Your task to perform on an android device: open app "Google Photos" (install if not already installed) Image 0: 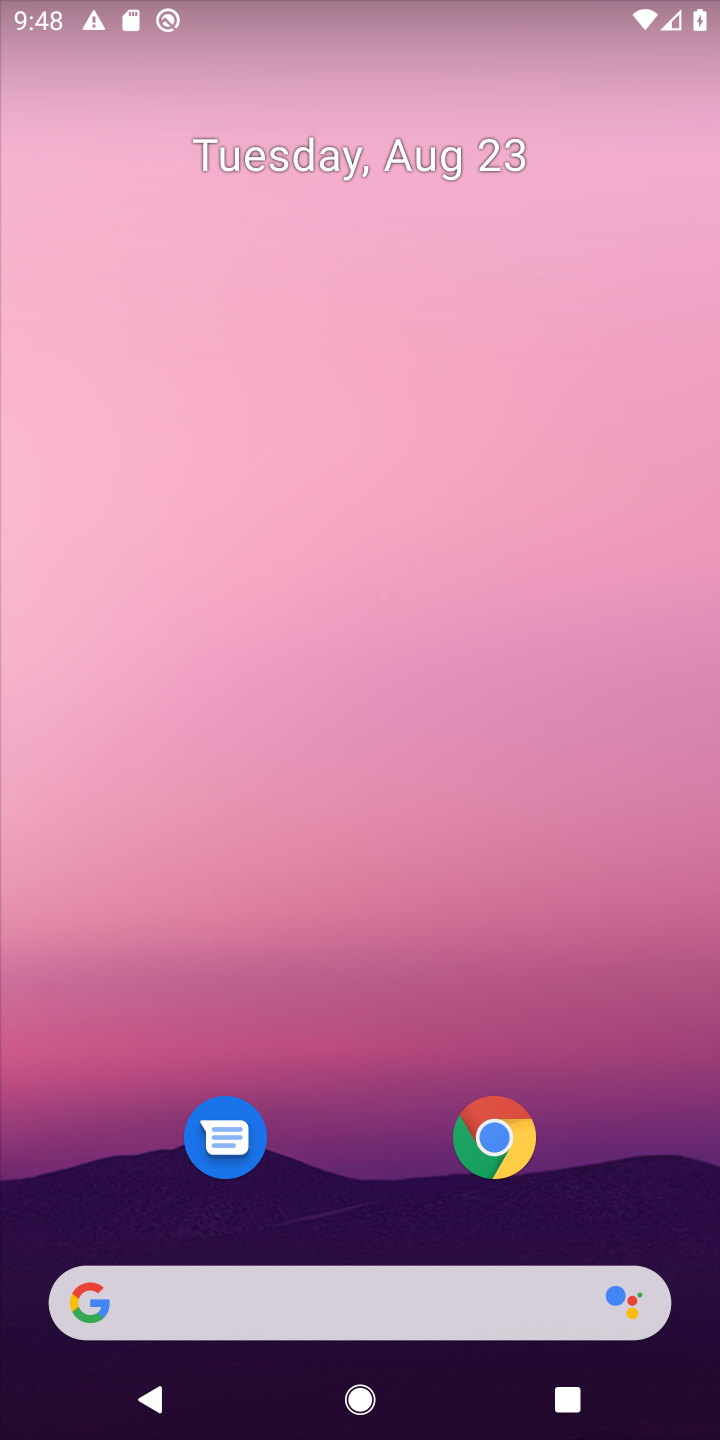
Step 0: drag from (455, 906) to (320, 106)
Your task to perform on an android device: open app "Google Photos" (install if not already installed) Image 1: 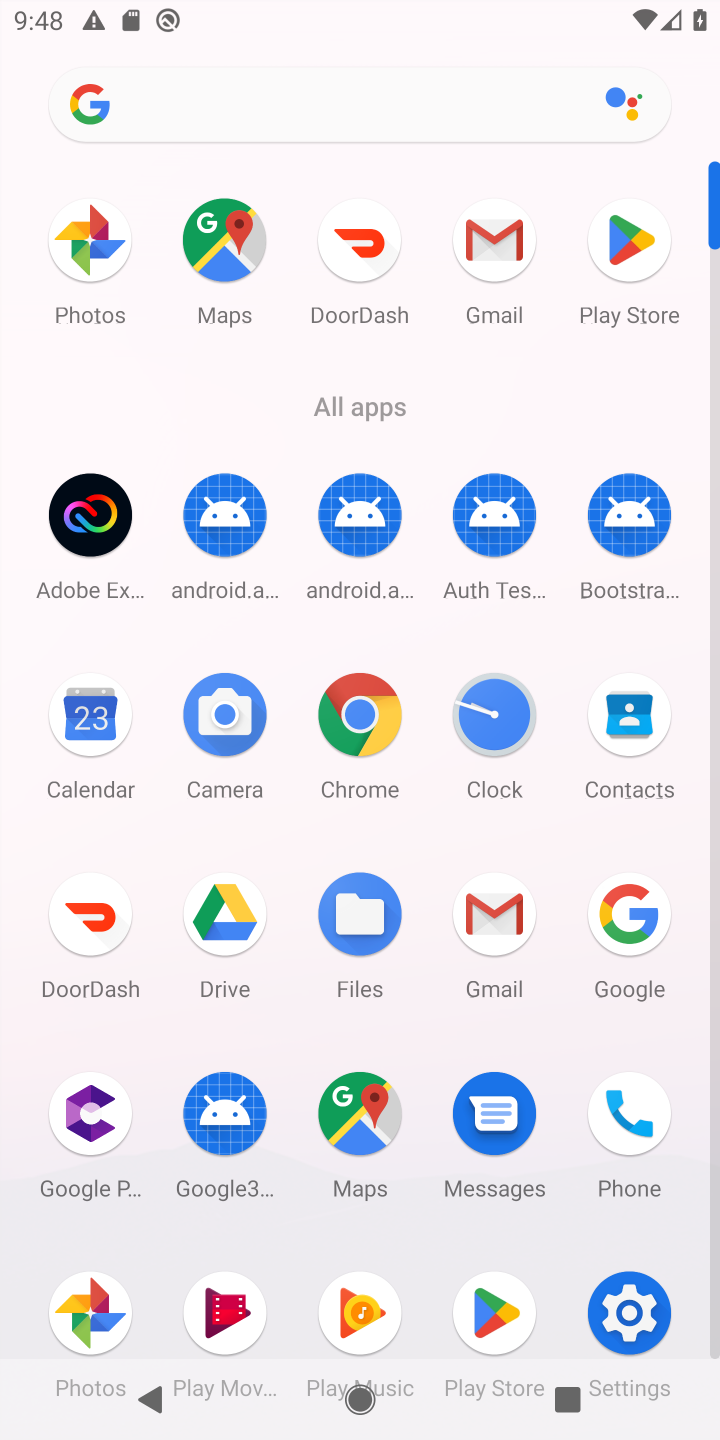
Step 1: click (102, 1299)
Your task to perform on an android device: open app "Google Photos" (install if not already installed) Image 2: 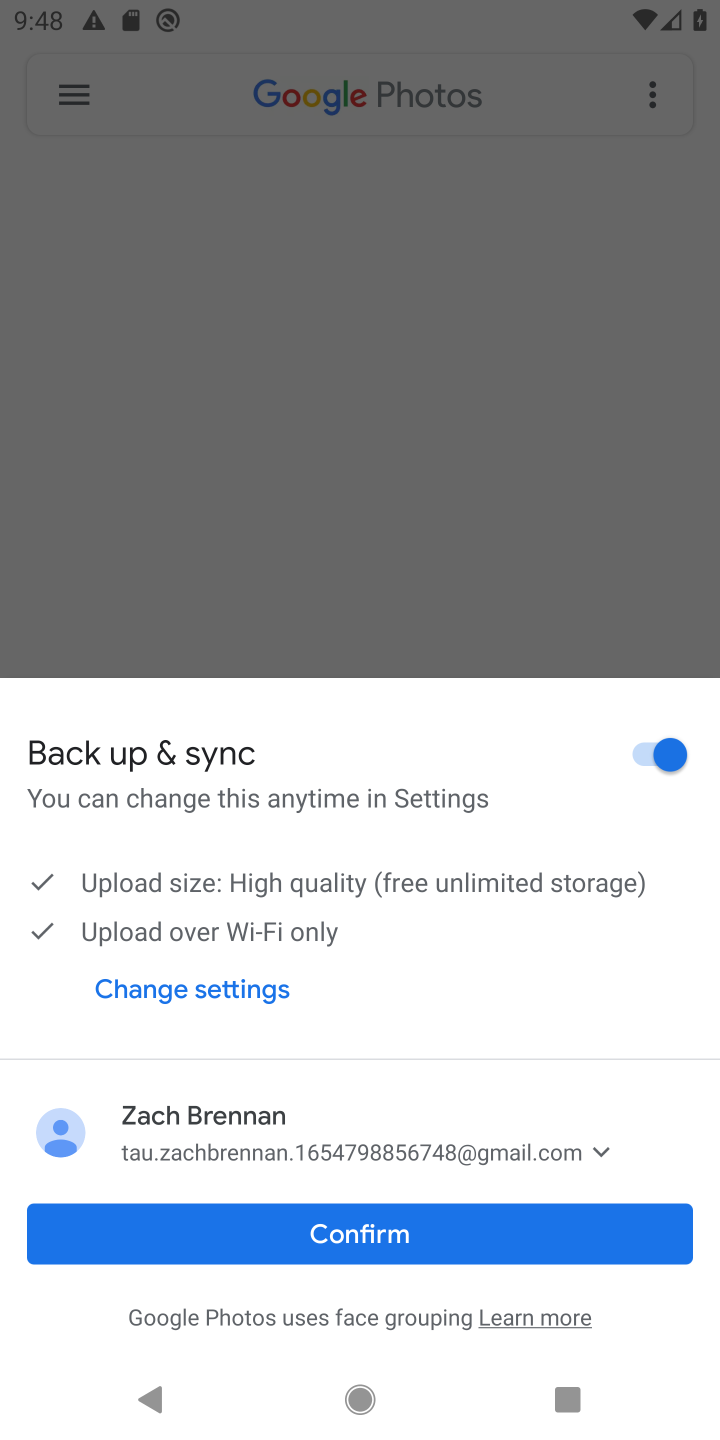
Step 2: click (216, 1255)
Your task to perform on an android device: open app "Google Photos" (install if not already installed) Image 3: 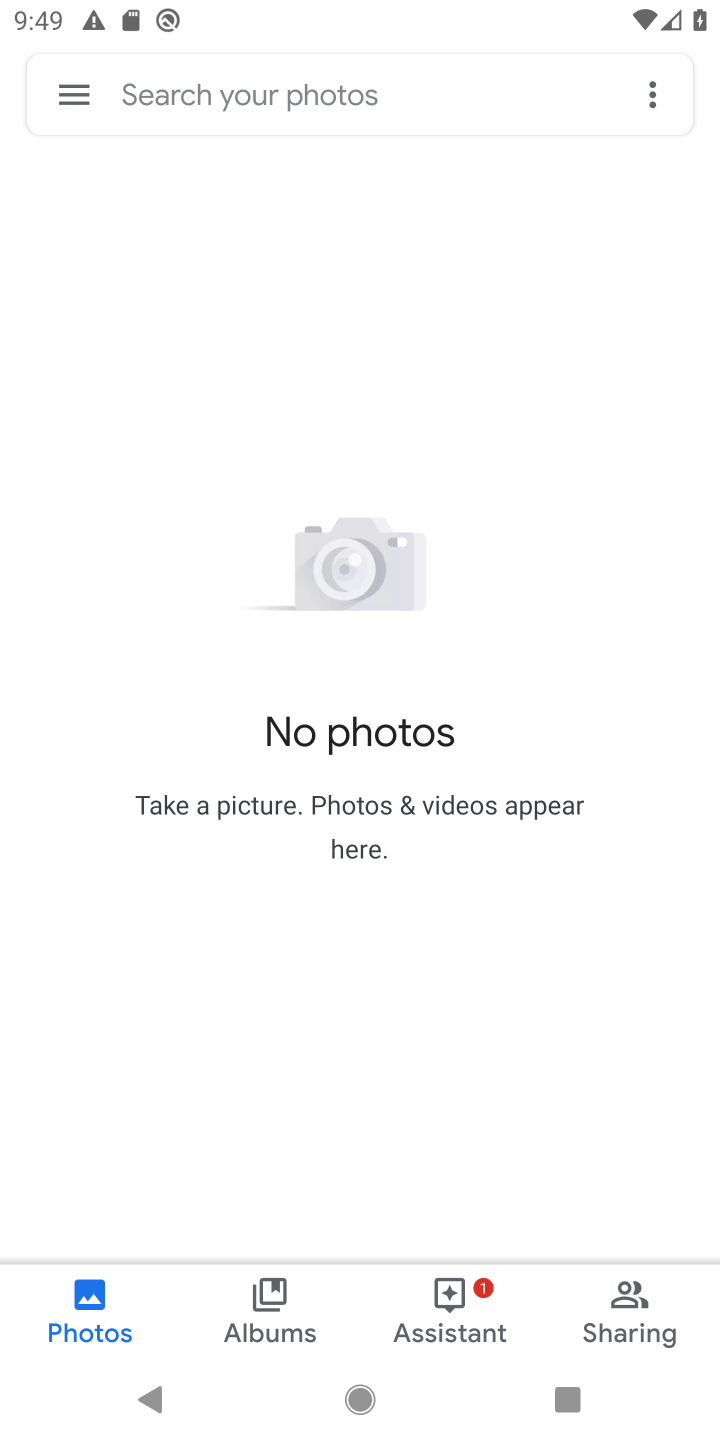
Step 3: task complete